Your task to perform on an android device: turn off notifications settings in the gmail app Image 0: 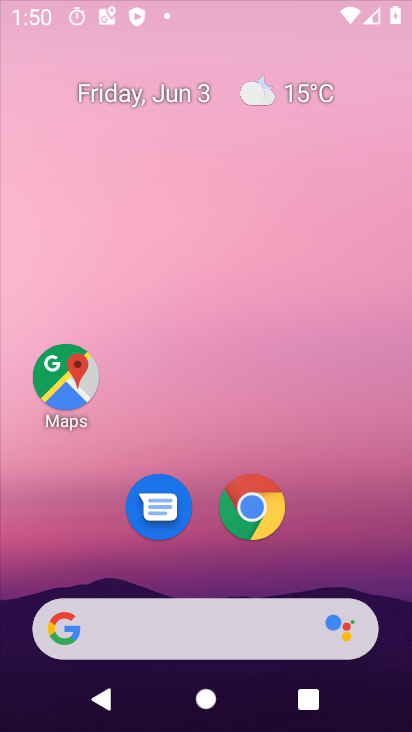
Step 0: drag from (393, 632) to (343, 42)
Your task to perform on an android device: turn off notifications settings in the gmail app Image 1: 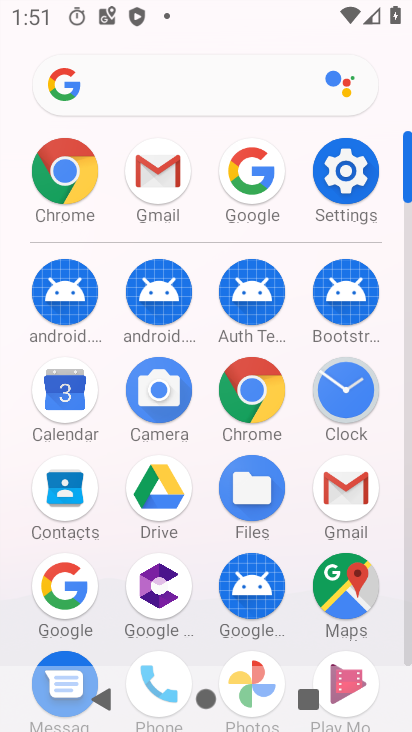
Step 1: click (359, 491)
Your task to perform on an android device: turn off notifications settings in the gmail app Image 2: 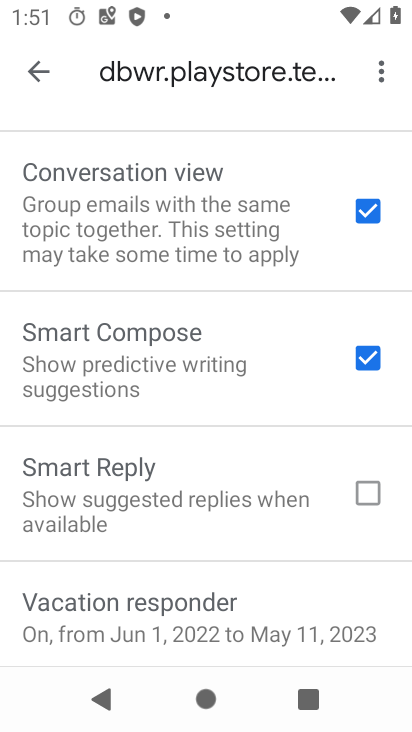
Step 2: drag from (153, 160) to (196, 660)
Your task to perform on an android device: turn off notifications settings in the gmail app Image 3: 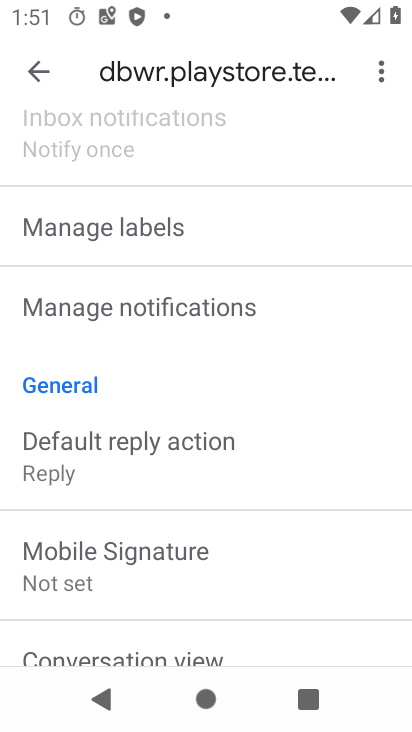
Step 3: drag from (233, 180) to (253, 628)
Your task to perform on an android device: turn off notifications settings in the gmail app Image 4: 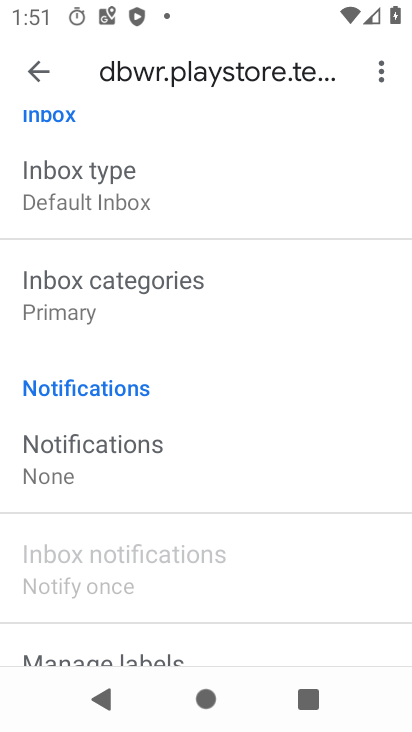
Step 4: click (118, 483)
Your task to perform on an android device: turn off notifications settings in the gmail app Image 5: 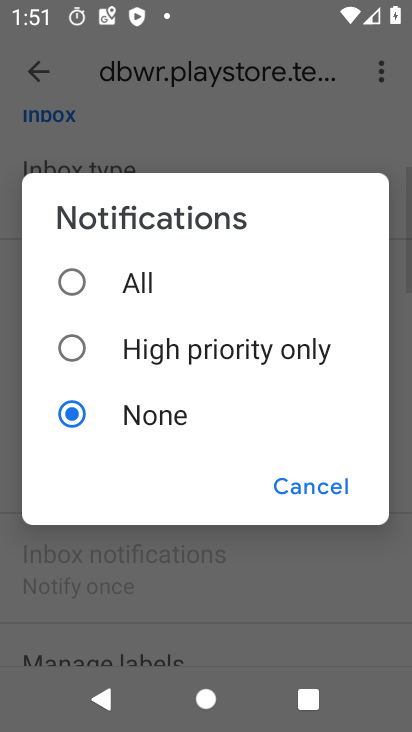
Step 5: click (158, 419)
Your task to perform on an android device: turn off notifications settings in the gmail app Image 6: 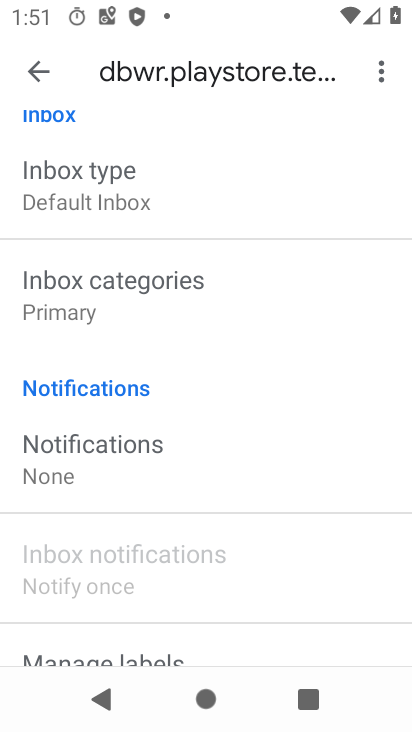
Step 6: task complete